Your task to perform on an android device: turn on bluetooth scan Image 0: 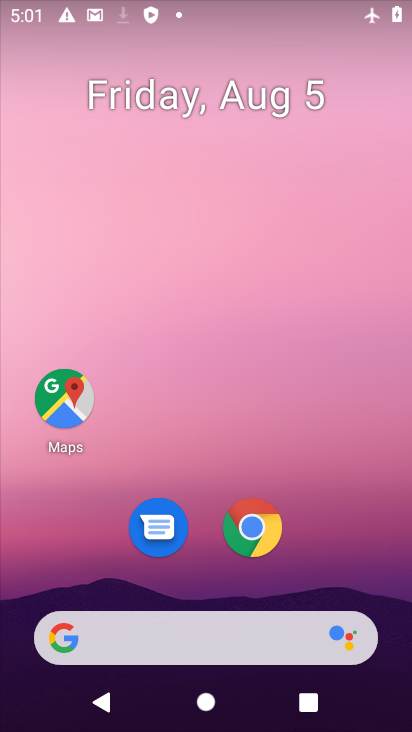
Step 0: drag from (184, 589) to (159, 83)
Your task to perform on an android device: turn on bluetooth scan Image 1: 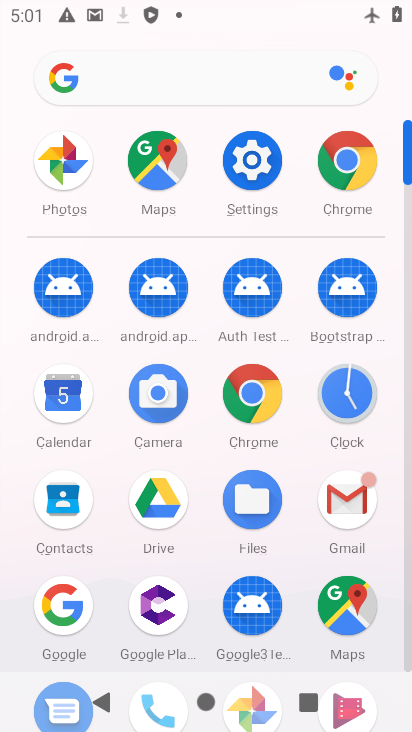
Step 1: click (247, 159)
Your task to perform on an android device: turn on bluetooth scan Image 2: 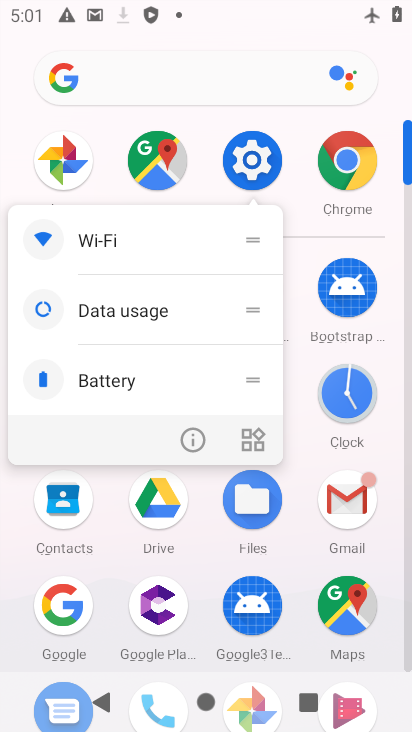
Step 2: click (175, 437)
Your task to perform on an android device: turn on bluetooth scan Image 3: 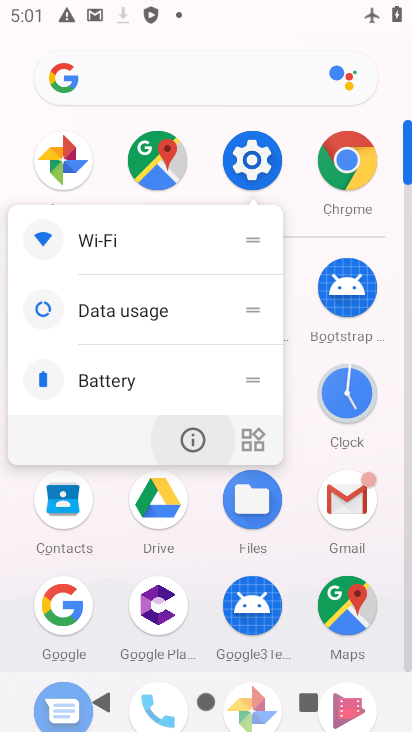
Step 3: click (174, 436)
Your task to perform on an android device: turn on bluetooth scan Image 4: 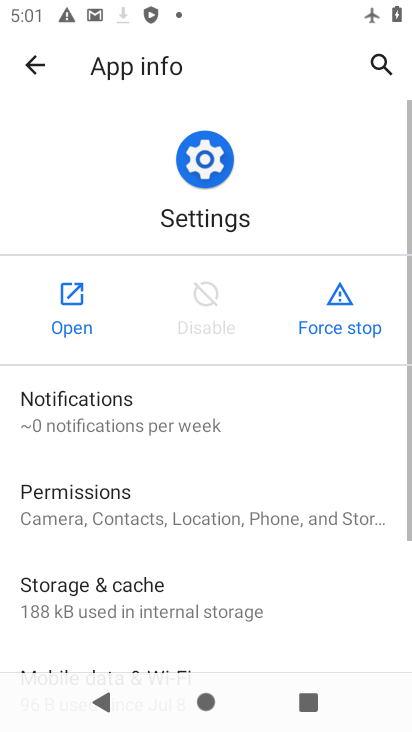
Step 4: click (81, 295)
Your task to perform on an android device: turn on bluetooth scan Image 5: 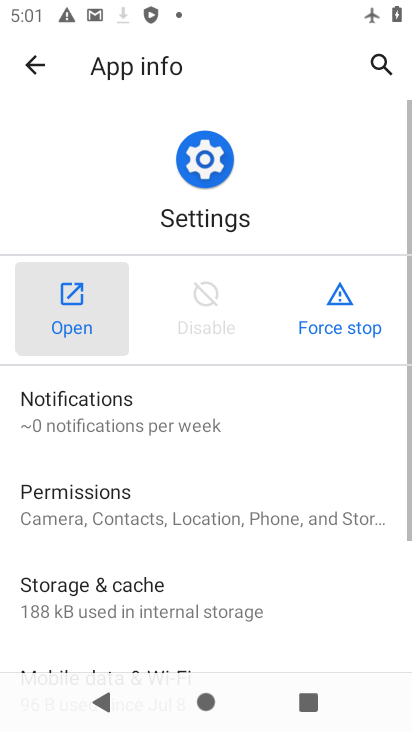
Step 5: click (81, 295)
Your task to perform on an android device: turn on bluetooth scan Image 6: 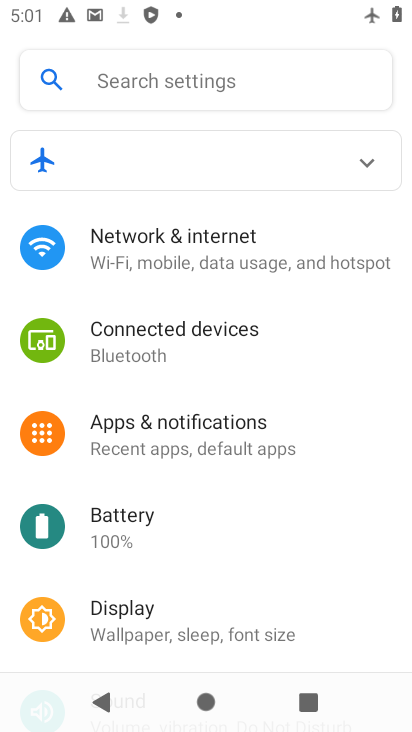
Step 6: click (266, 130)
Your task to perform on an android device: turn on bluetooth scan Image 7: 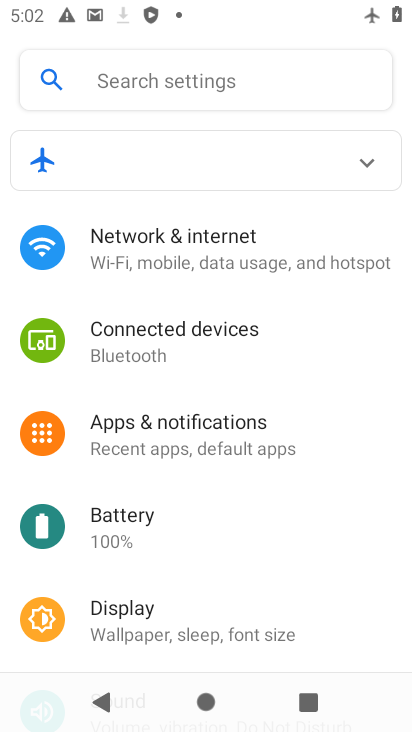
Step 7: drag from (220, 590) to (214, 246)
Your task to perform on an android device: turn on bluetooth scan Image 8: 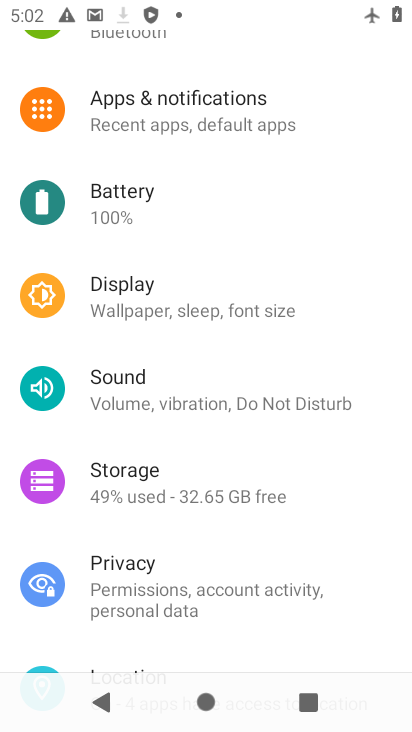
Step 8: click (233, 120)
Your task to perform on an android device: turn on bluetooth scan Image 9: 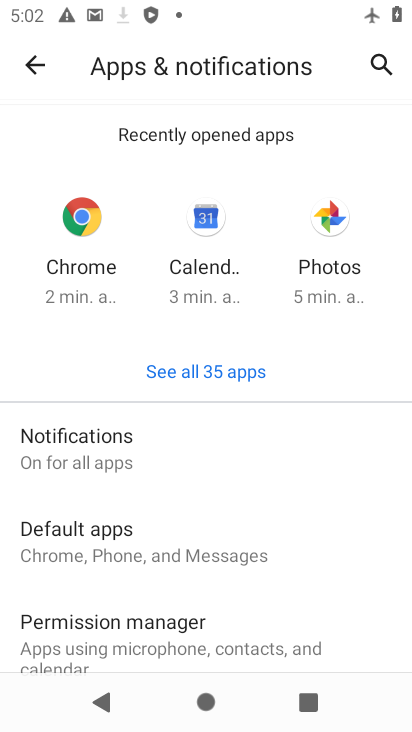
Step 9: click (155, 441)
Your task to perform on an android device: turn on bluetooth scan Image 10: 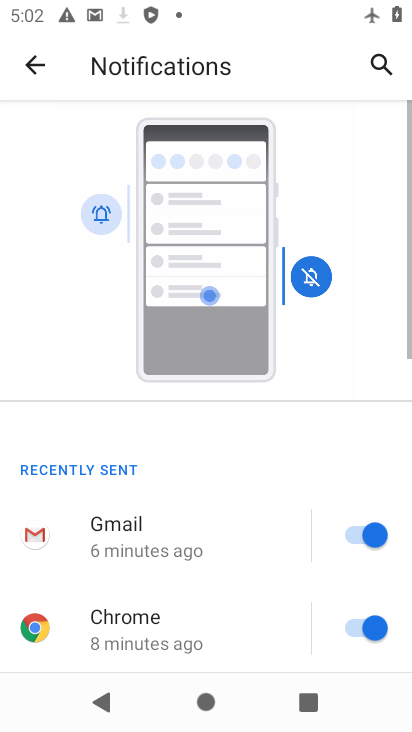
Step 10: drag from (240, 602) to (307, 203)
Your task to perform on an android device: turn on bluetooth scan Image 11: 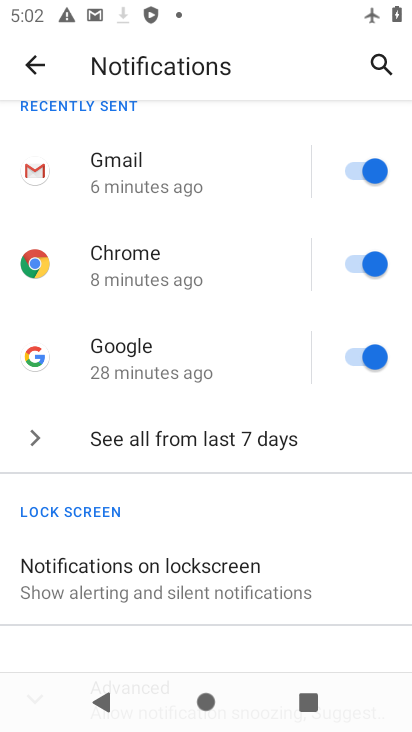
Step 11: drag from (247, 304) to (282, 720)
Your task to perform on an android device: turn on bluetooth scan Image 12: 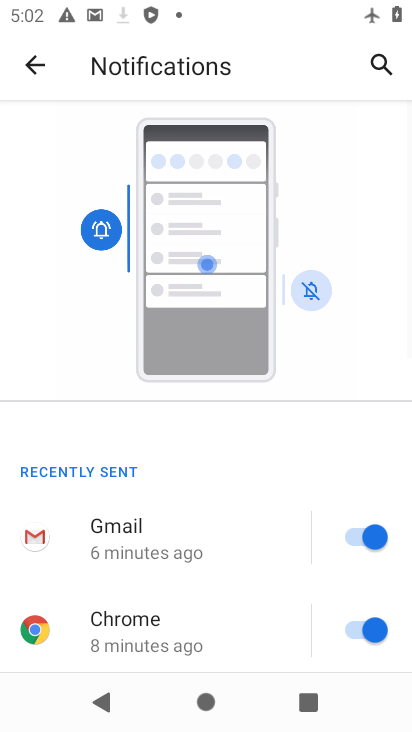
Step 12: click (35, 53)
Your task to perform on an android device: turn on bluetooth scan Image 13: 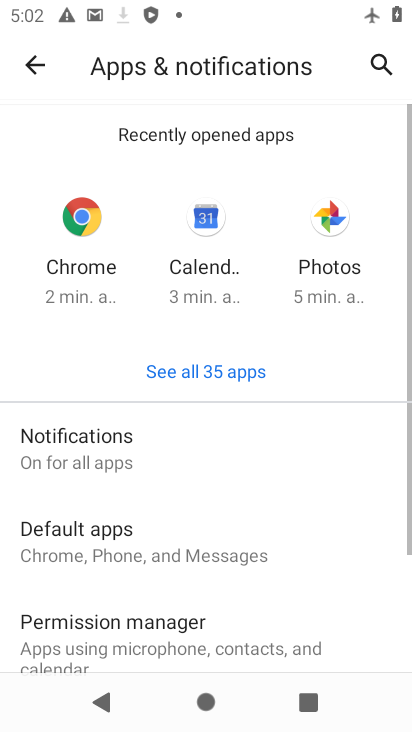
Step 13: drag from (205, 589) to (241, 90)
Your task to perform on an android device: turn on bluetooth scan Image 14: 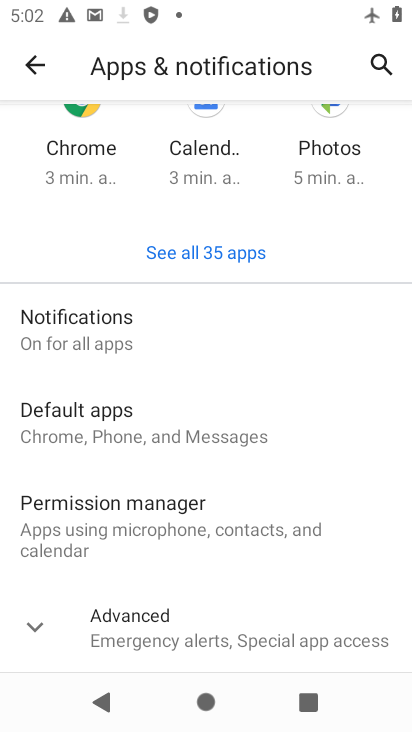
Step 14: click (40, 61)
Your task to perform on an android device: turn on bluetooth scan Image 15: 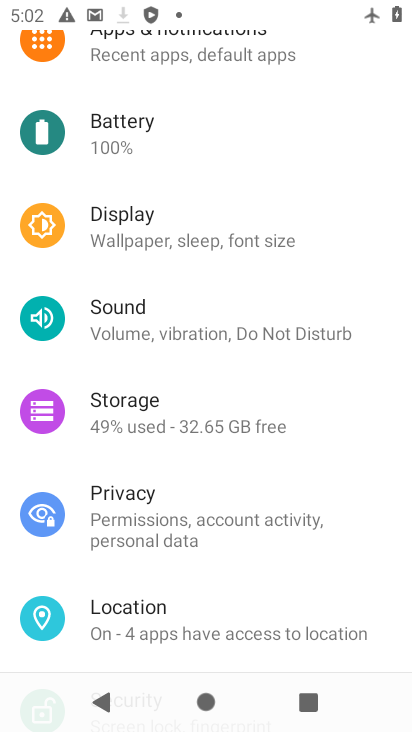
Step 15: drag from (233, 607) to (297, 85)
Your task to perform on an android device: turn on bluetooth scan Image 16: 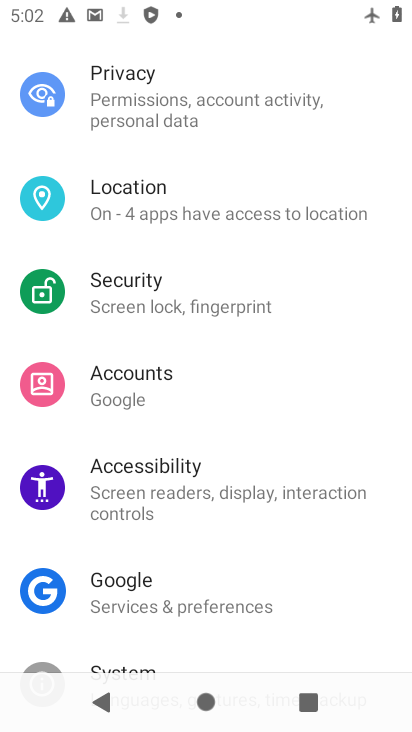
Step 16: click (120, 207)
Your task to perform on an android device: turn on bluetooth scan Image 17: 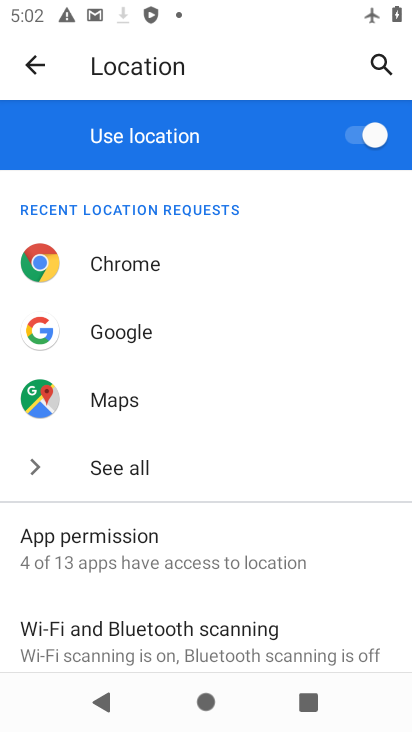
Step 17: drag from (173, 543) to (223, 239)
Your task to perform on an android device: turn on bluetooth scan Image 18: 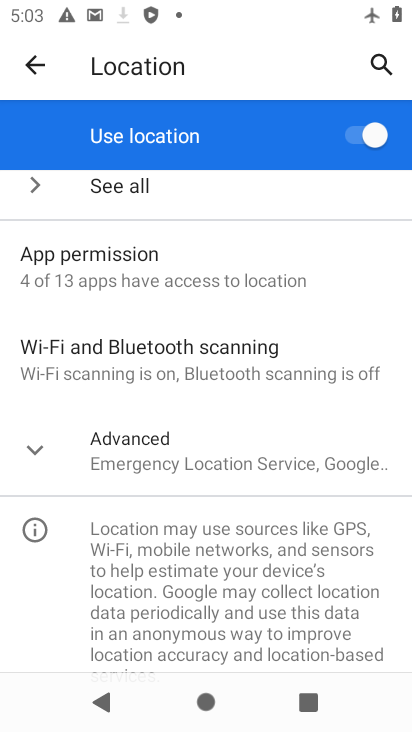
Step 18: click (157, 349)
Your task to perform on an android device: turn on bluetooth scan Image 19: 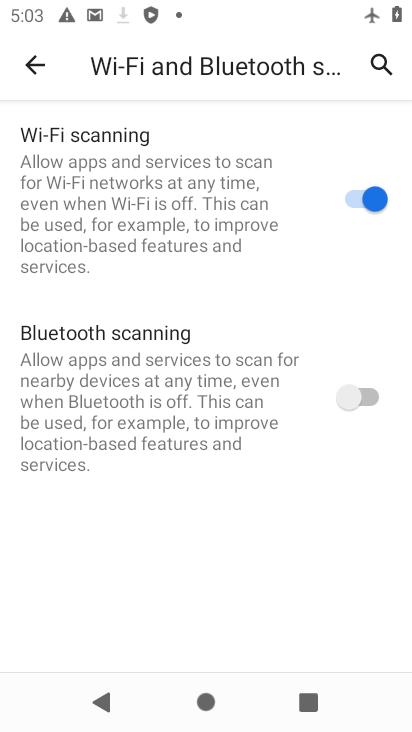
Step 19: click (357, 392)
Your task to perform on an android device: turn on bluetooth scan Image 20: 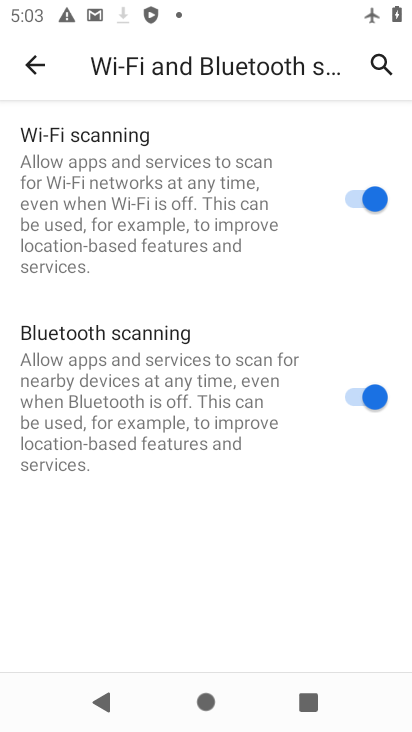
Step 20: task complete